Your task to perform on an android device: Show the shopping cart on costco. Add "acer nitro" to the cart on costco, then select checkout. Image 0: 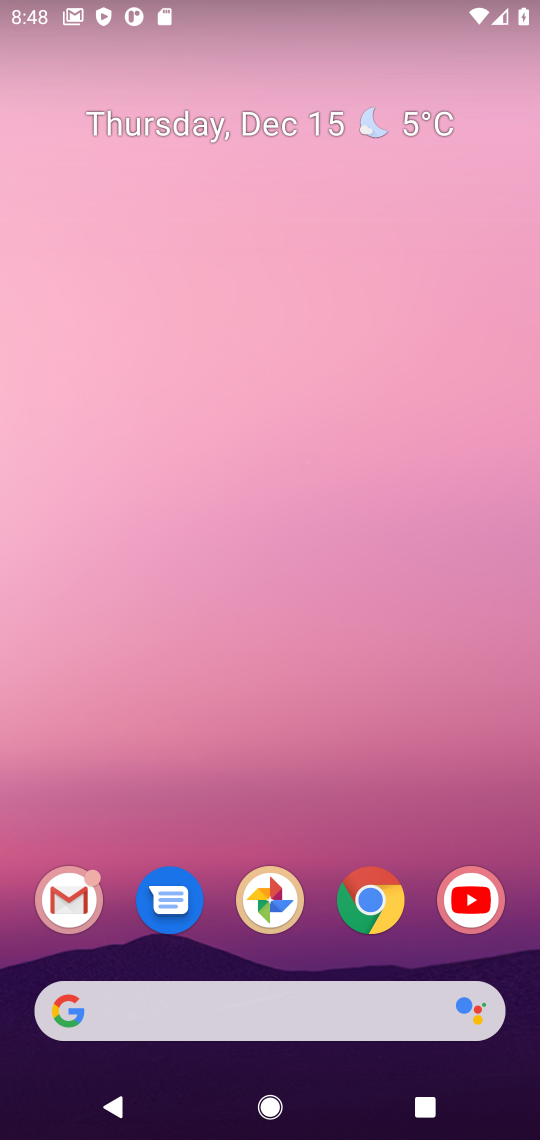
Step 0: click (366, 918)
Your task to perform on an android device: Show the shopping cart on costco. Add "acer nitro" to the cart on costco, then select checkout. Image 1: 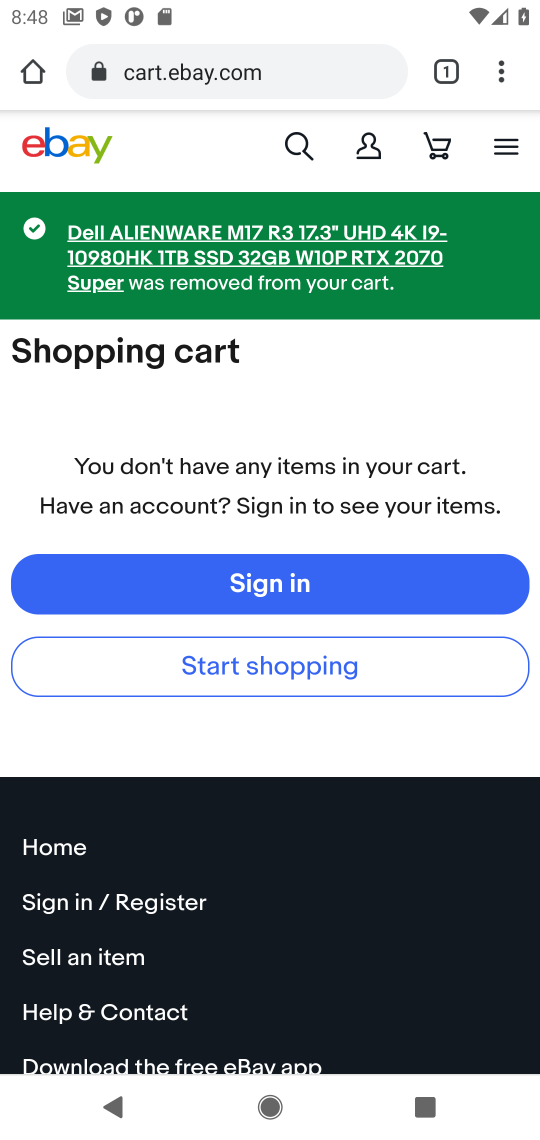
Step 1: click (245, 81)
Your task to perform on an android device: Show the shopping cart on costco. Add "acer nitro" to the cart on costco, then select checkout. Image 2: 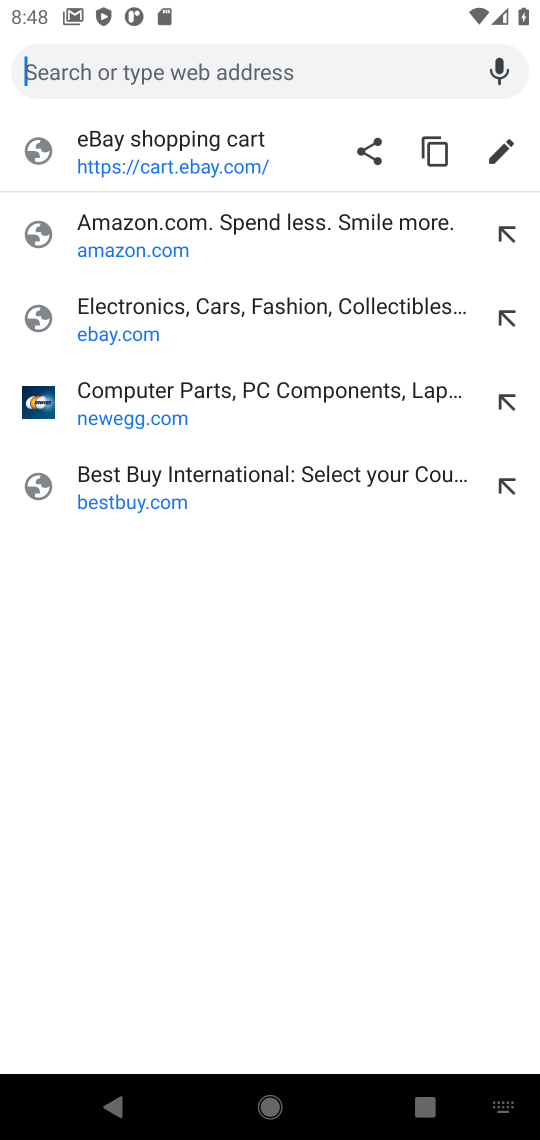
Step 2: type "costco"
Your task to perform on an android device: Show the shopping cart on costco. Add "acer nitro" to the cart on costco, then select checkout. Image 3: 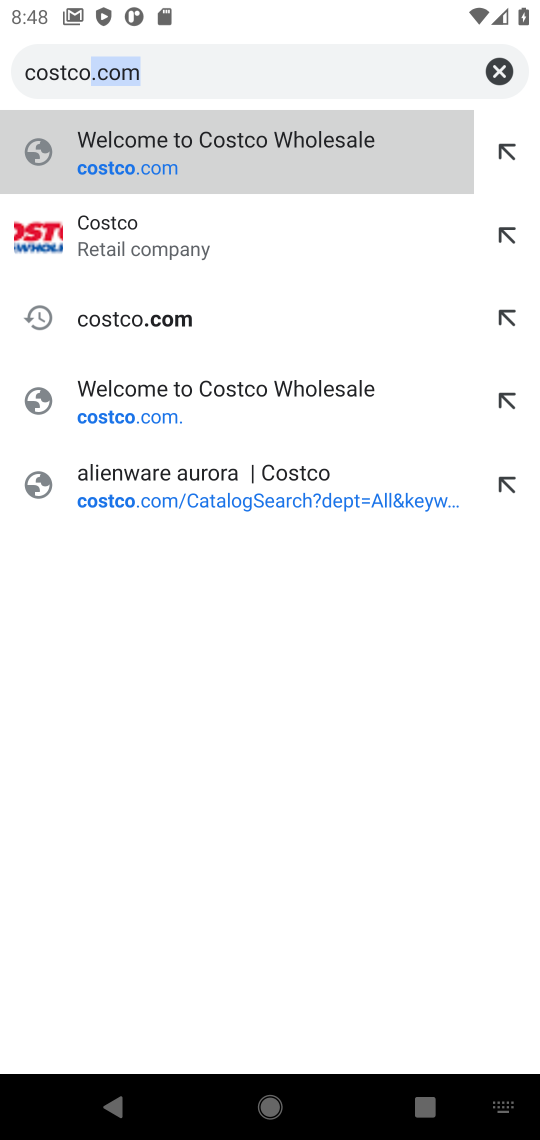
Step 3: click (117, 171)
Your task to perform on an android device: Show the shopping cart on costco. Add "acer nitro" to the cart on costco, then select checkout. Image 4: 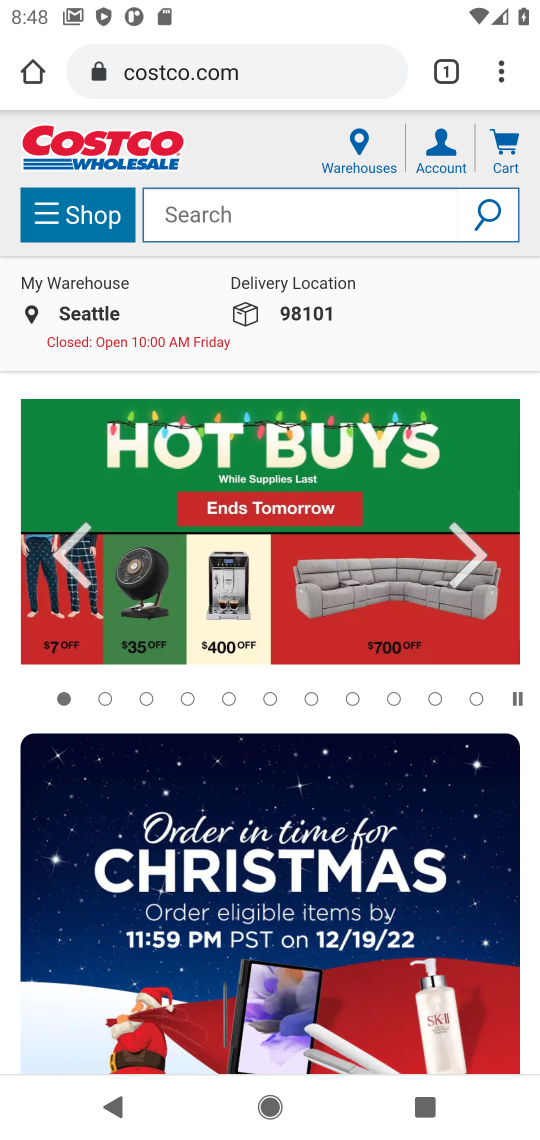
Step 4: click (188, 232)
Your task to perform on an android device: Show the shopping cart on costco. Add "acer nitro" to the cart on costco, then select checkout. Image 5: 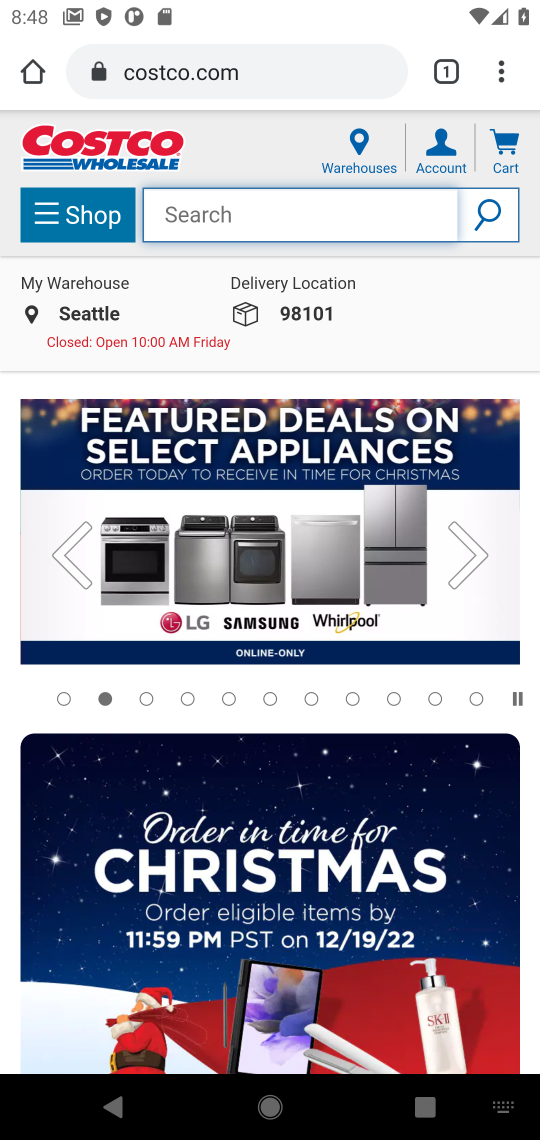
Step 5: type "acer nitro"
Your task to perform on an android device: Show the shopping cart on costco. Add "acer nitro" to the cart on costco, then select checkout. Image 6: 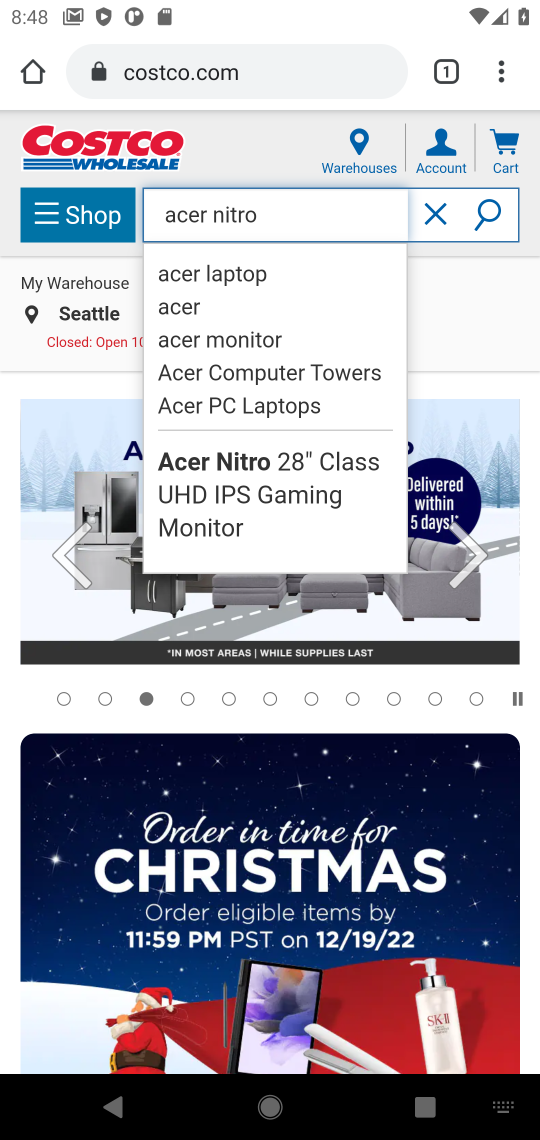
Step 6: press enter
Your task to perform on an android device: Show the shopping cart on costco. Add "acer nitro" to the cart on costco, then select checkout. Image 7: 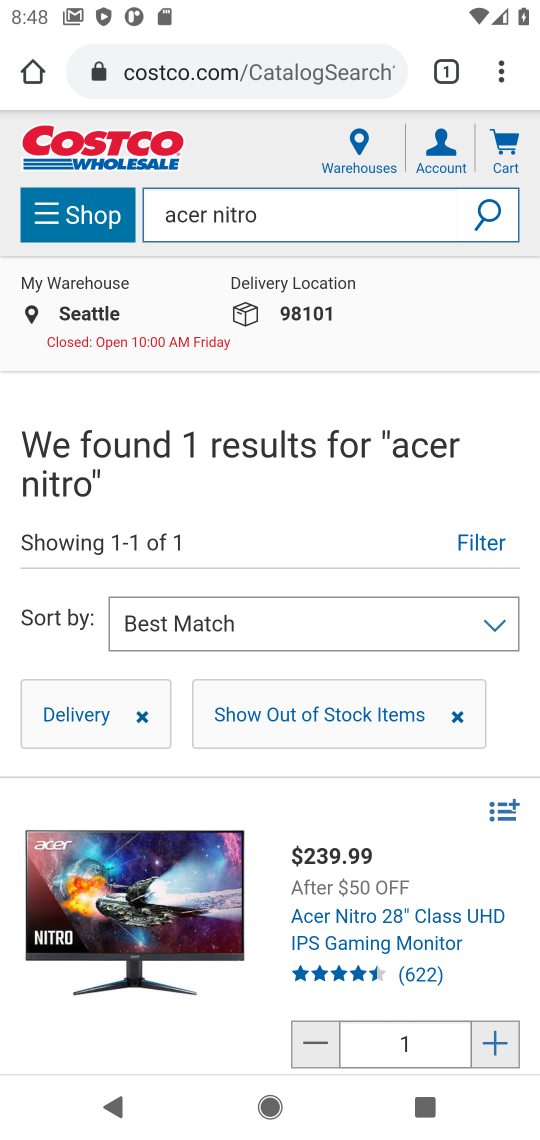
Step 7: click (346, 942)
Your task to perform on an android device: Show the shopping cart on costco. Add "acer nitro" to the cart on costco, then select checkout. Image 8: 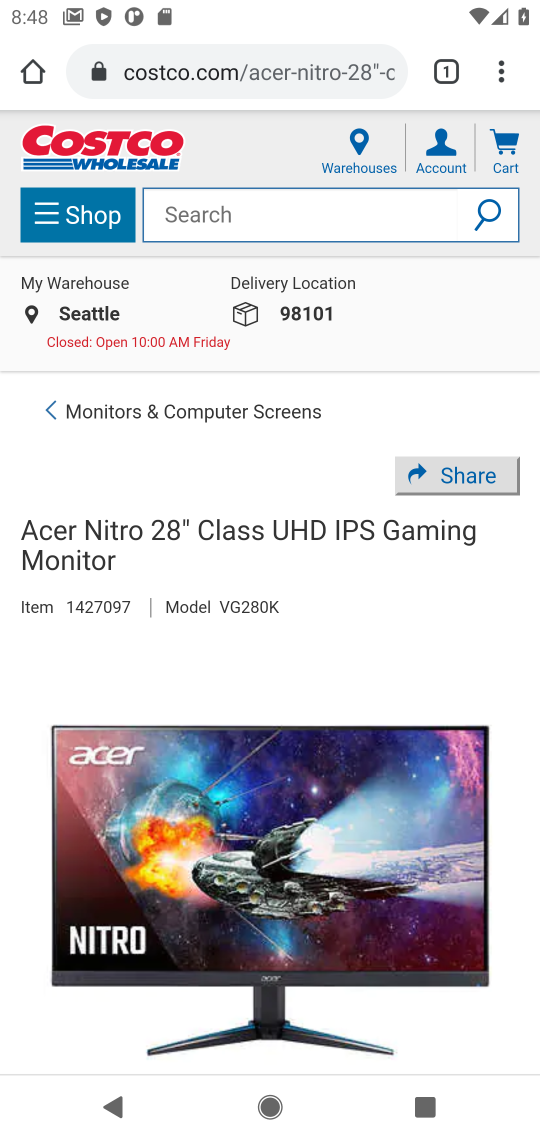
Step 8: drag from (406, 1014) to (238, 324)
Your task to perform on an android device: Show the shopping cart on costco. Add "acer nitro" to the cart on costco, then select checkout. Image 9: 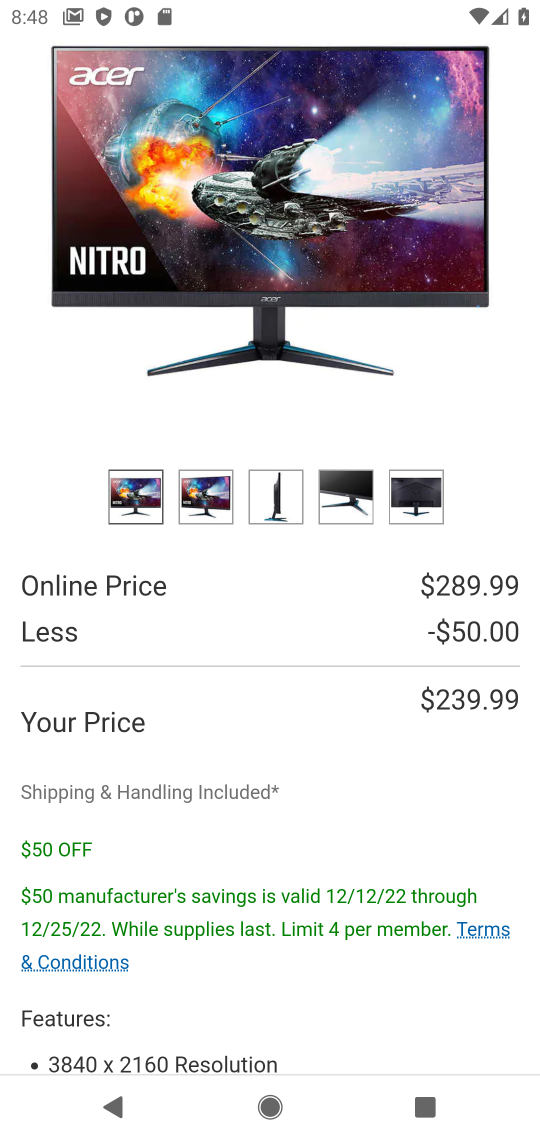
Step 9: drag from (303, 873) to (247, 297)
Your task to perform on an android device: Show the shopping cart on costco. Add "acer nitro" to the cart on costco, then select checkout. Image 10: 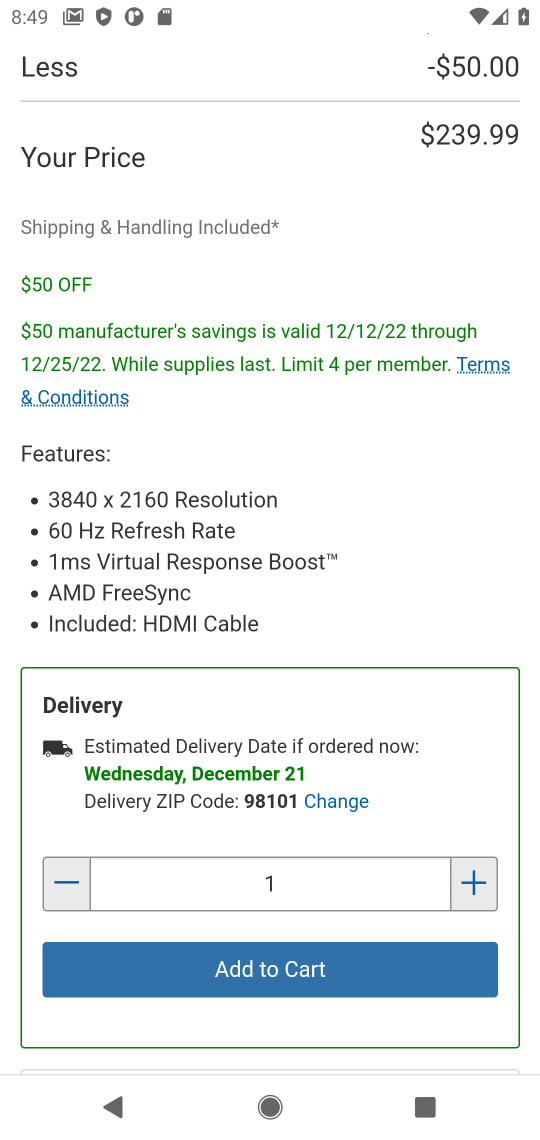
Step 10: click (267, 981)
Your task to perform on an android device: Show the shopping cart on costco. Add "acer nitro" to the cart on costco, then select checkout. Image 11: 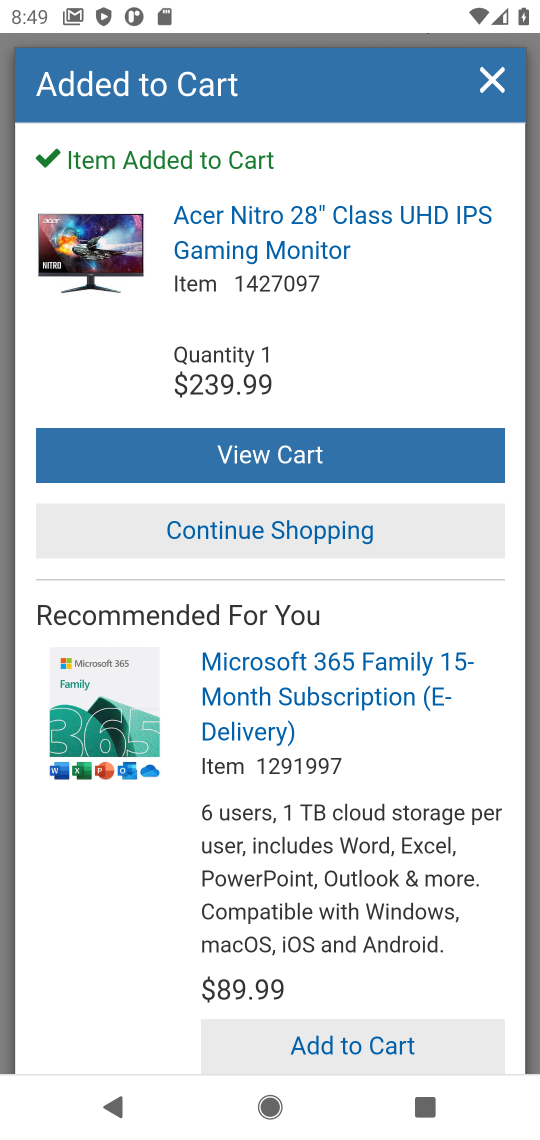
Step 11: click (276, 462)
Your task to perform on an android device: Show the shopping cart on costco. Add "acer nitro" to the cart on costco, then select checkout. Image 12: 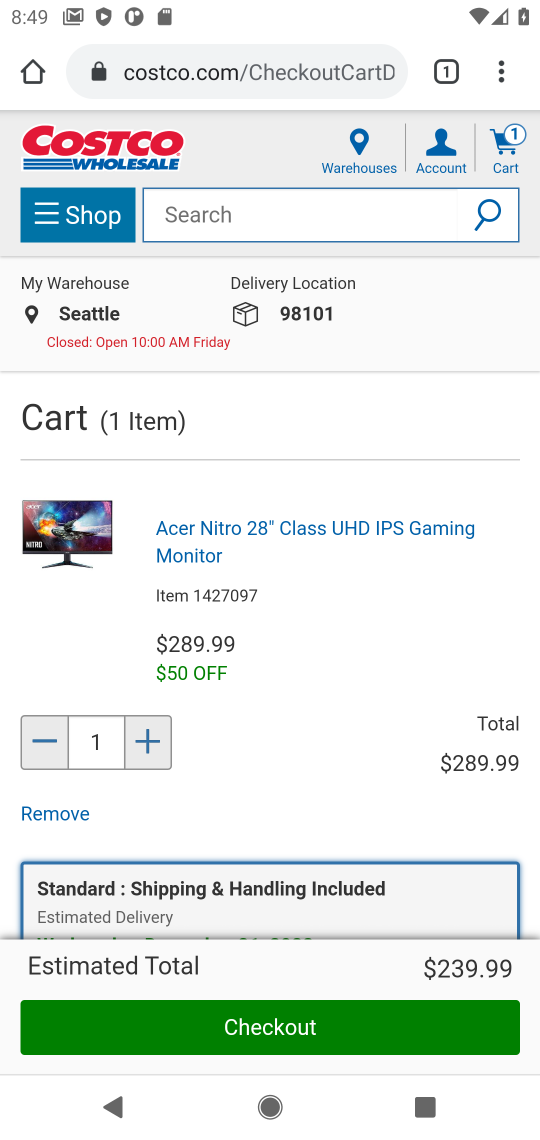
Step 12: click (240, 1040)
Your task to perform on an android device: Show the shopping cart on costco. Add "acer nitro" to the cart on costco, then select checkout. Image 13: 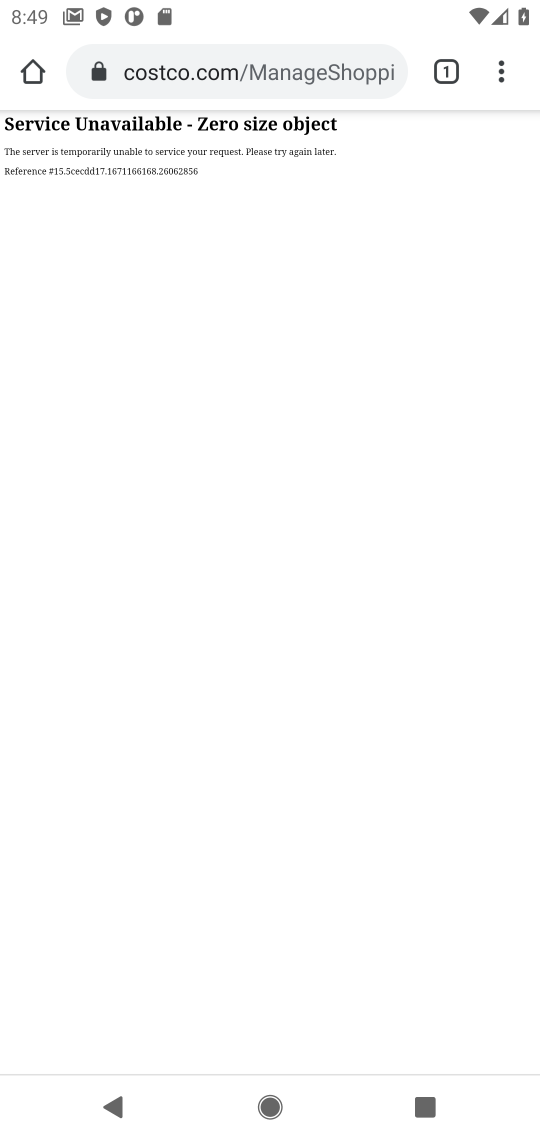
Step 13: task complete